Your task to perform on an android device: uninstall "Google Keep" Image 0: 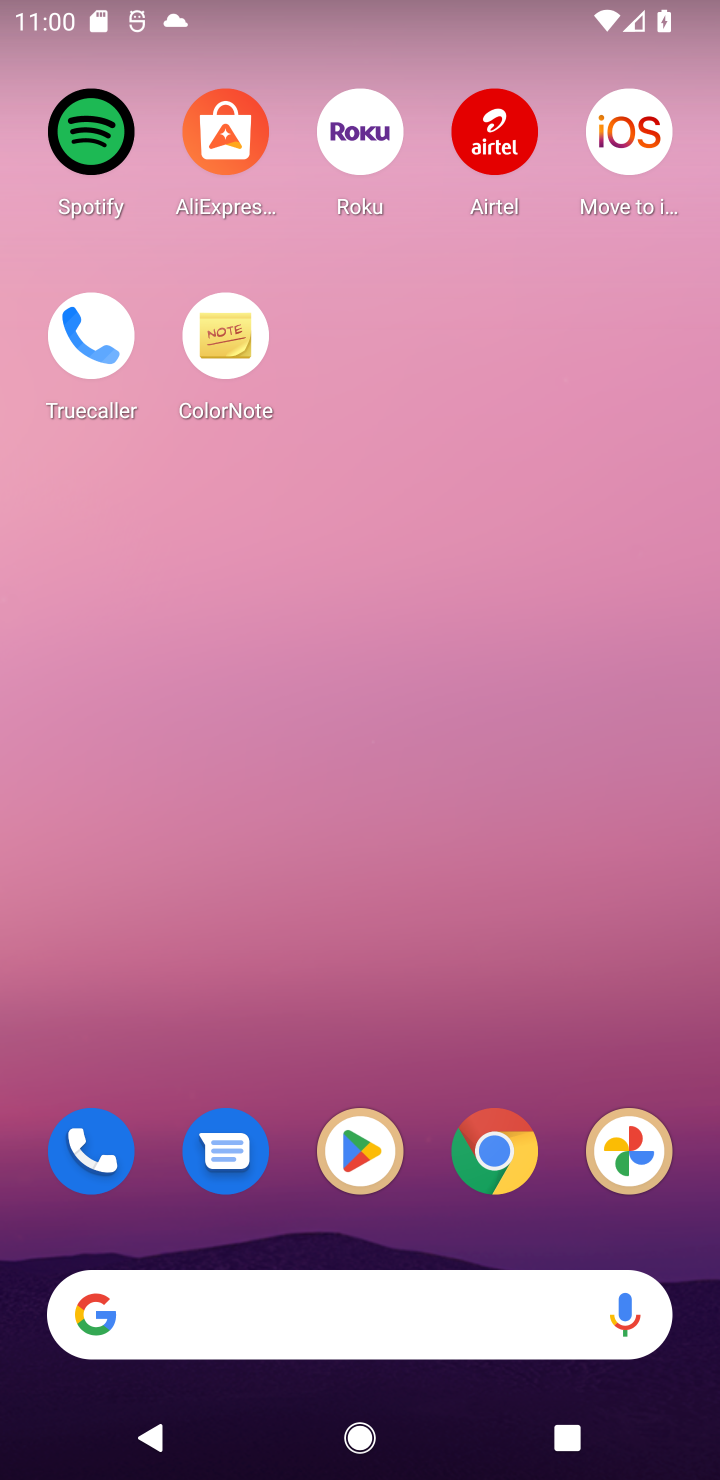
Step 0: press home button
Your task to perform on an android device: uninstall "Google Keep" Image 1: 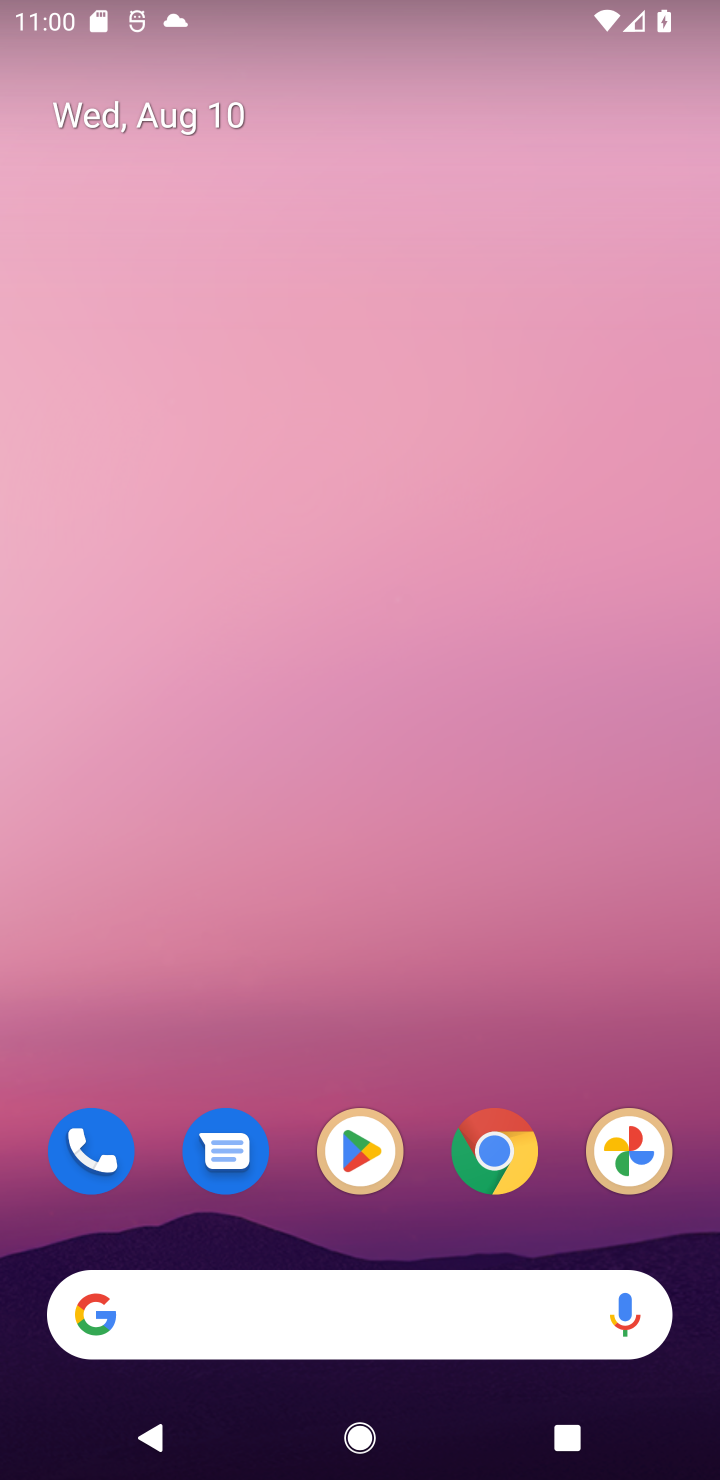
Step 1: drag from (430, 1208) to (434, 267)
Your task to perform on an android device: uninstall "Google Keep" Image 2: 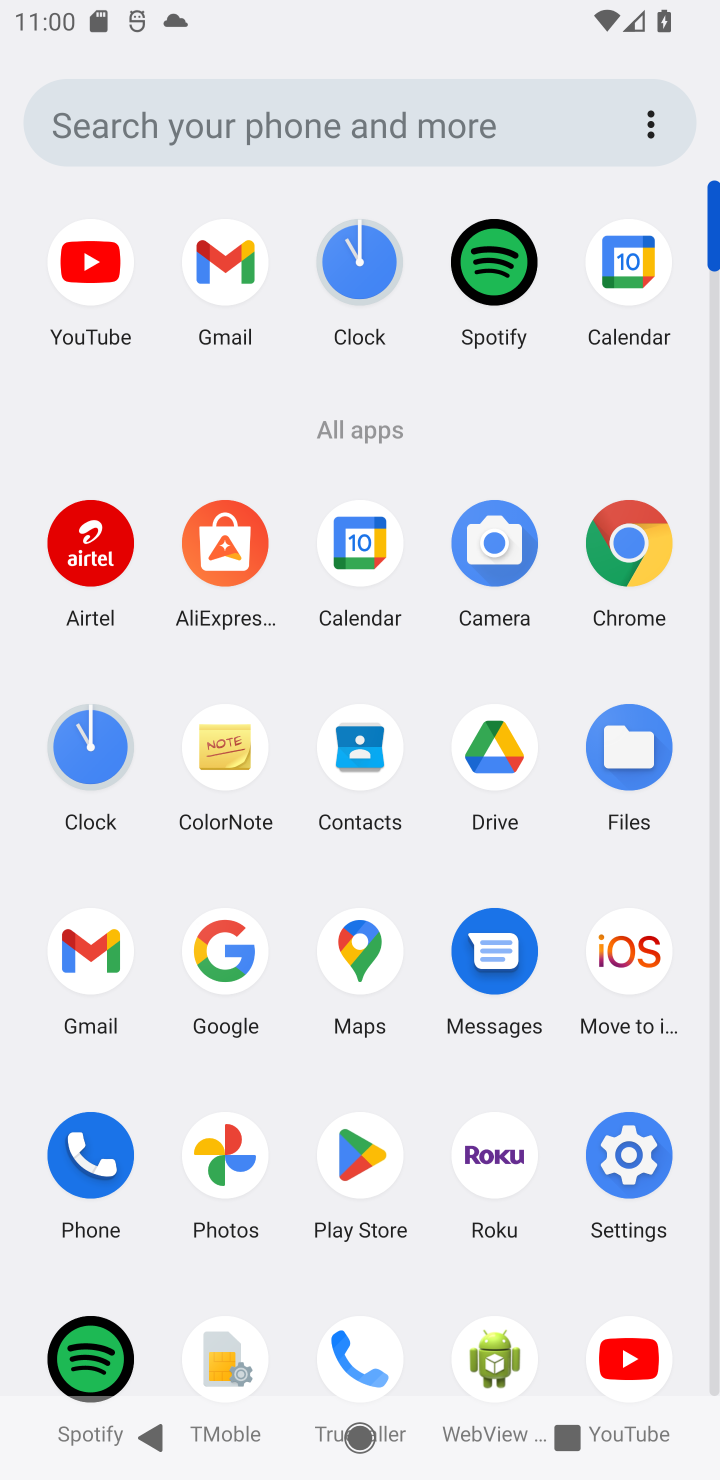
Step 2: click (358, 1143)
Your task to perform on an android device: uninstall "Google Keep" Image 3: 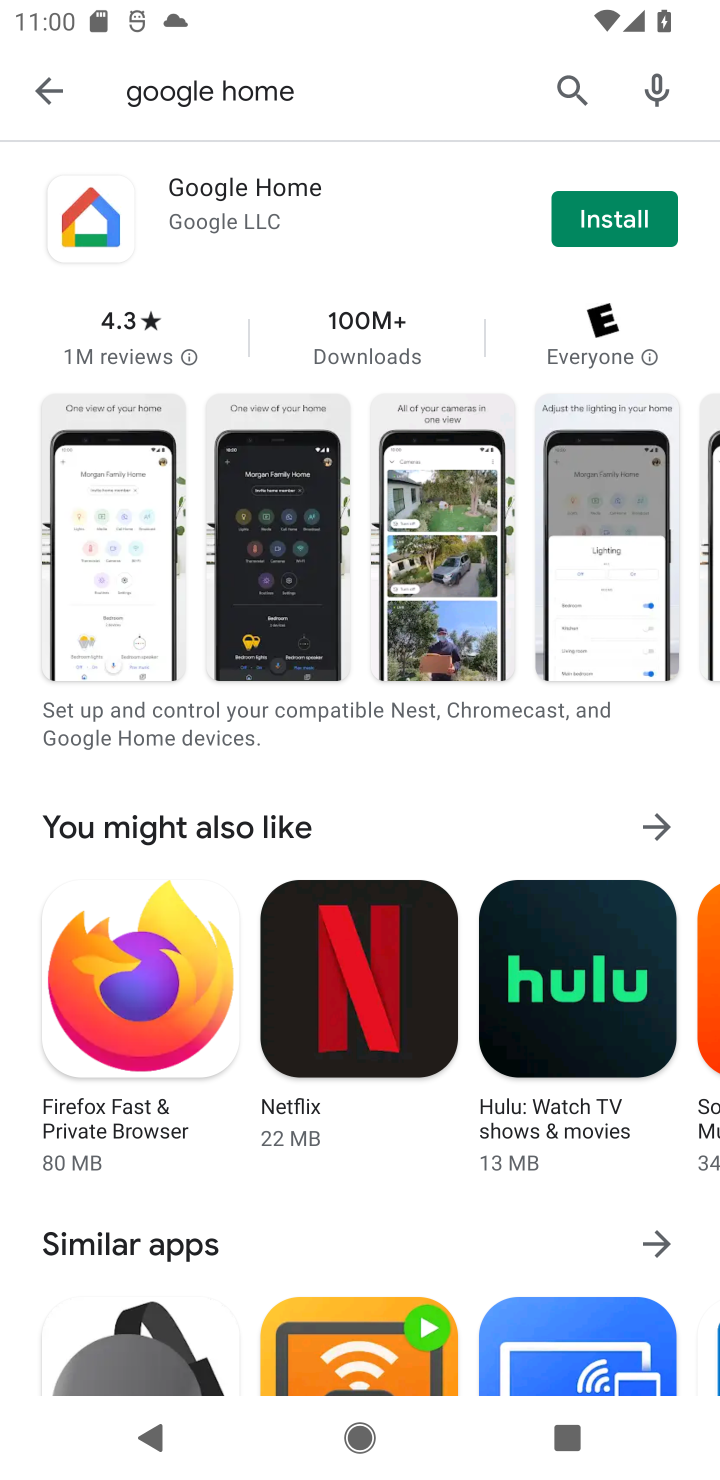
Step 3: click (562, 100)
Your task to perform on an android device: uninstall "Google Keep" Image 4: 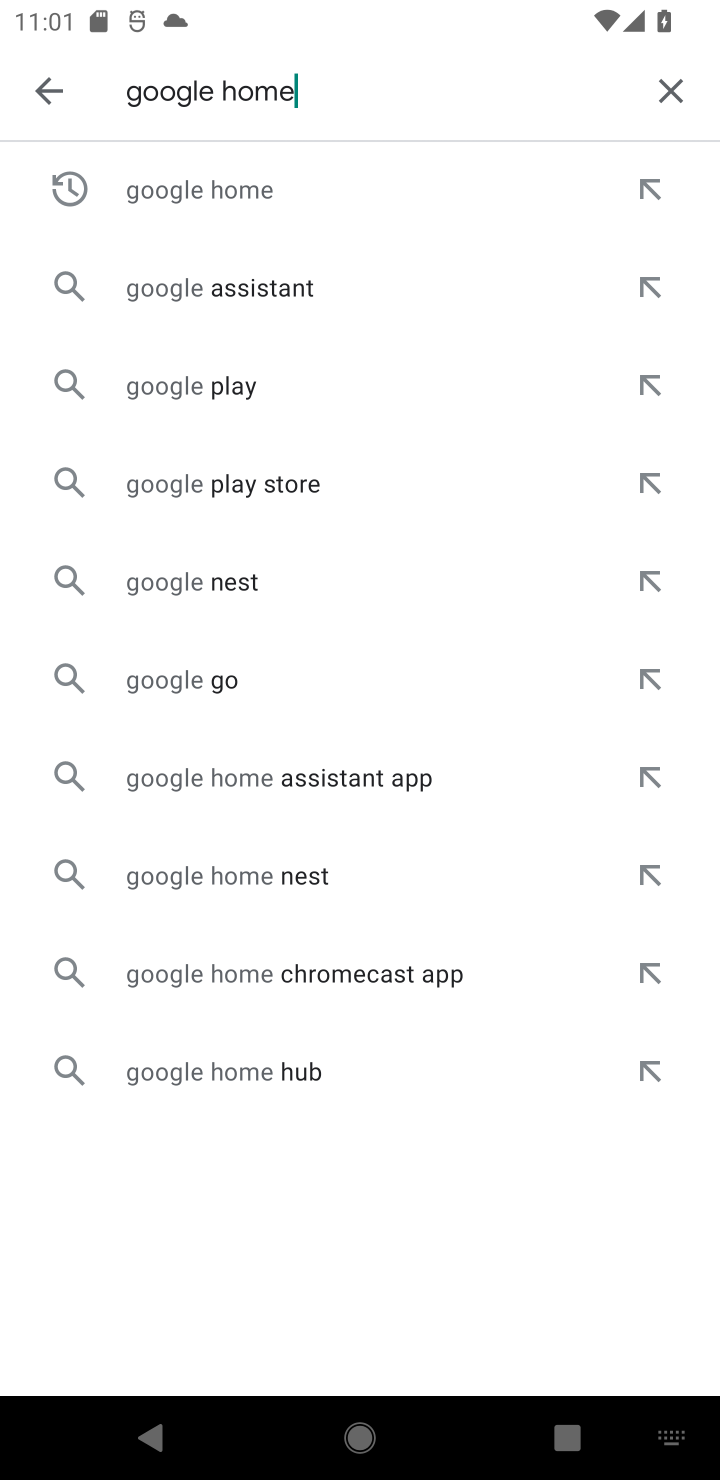
Step 4: click (670, 83)
Your task to perform on an android device: uninstall "Google Keep" Image 5: 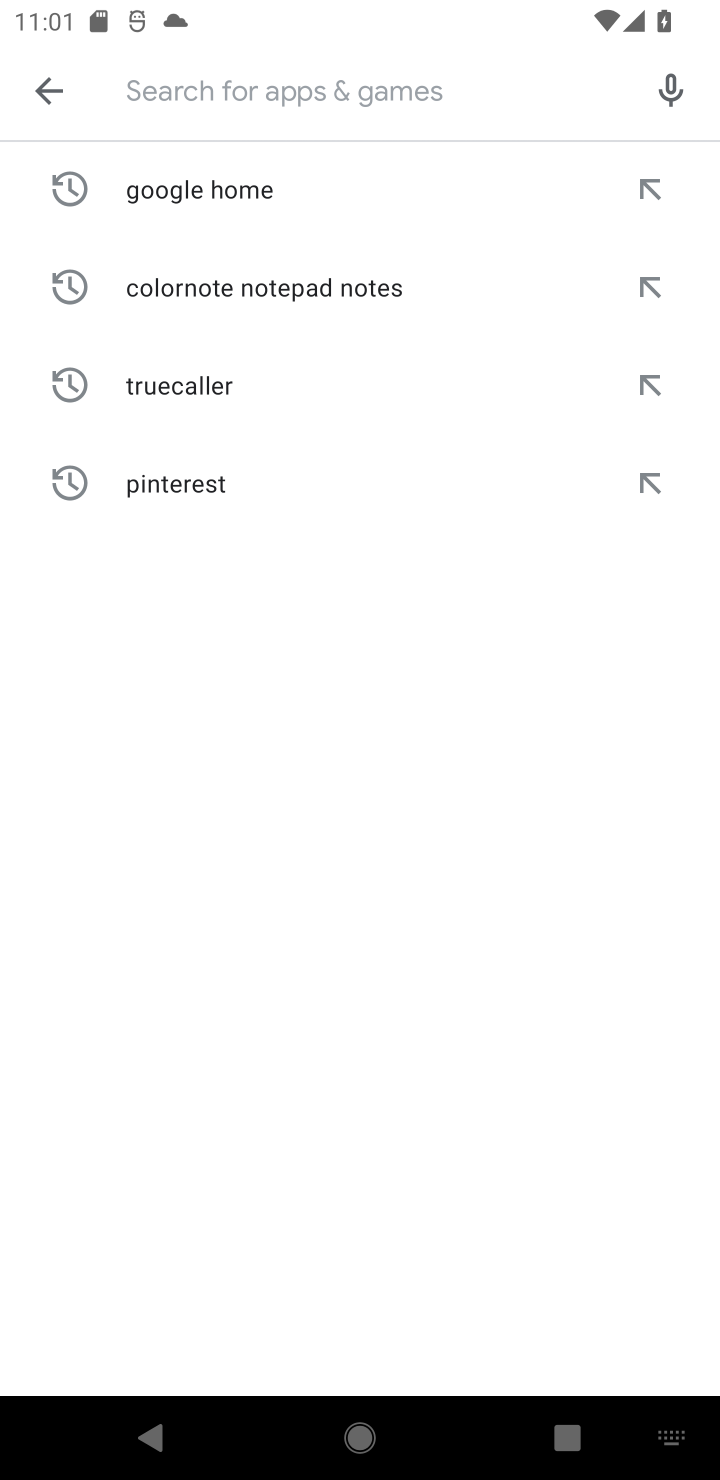
Step 5: type "Google Keep"
Your task to perform on an android device: uninstall "Google Keep" Image 6: 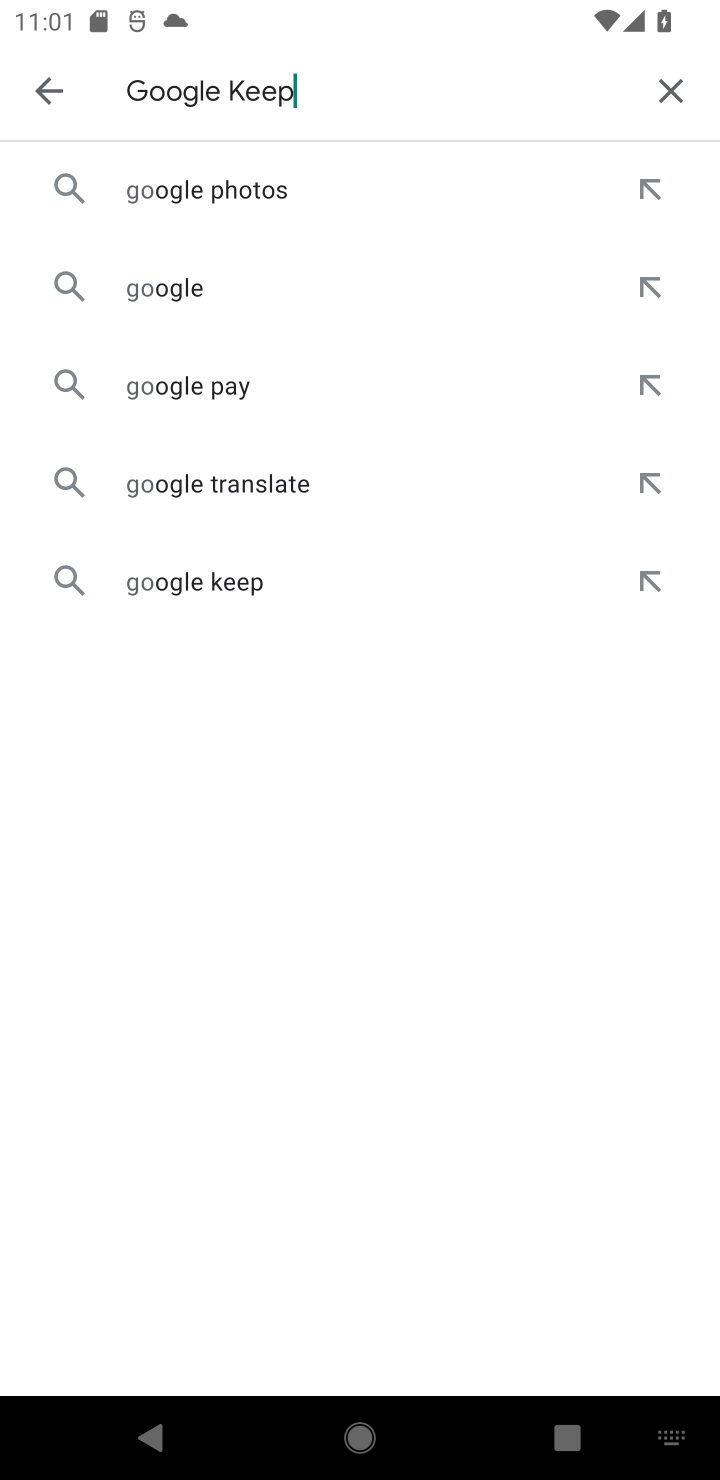
Step 6: type ""
Your task to perform on an android device: uninstall "Google Keep" Image 7: 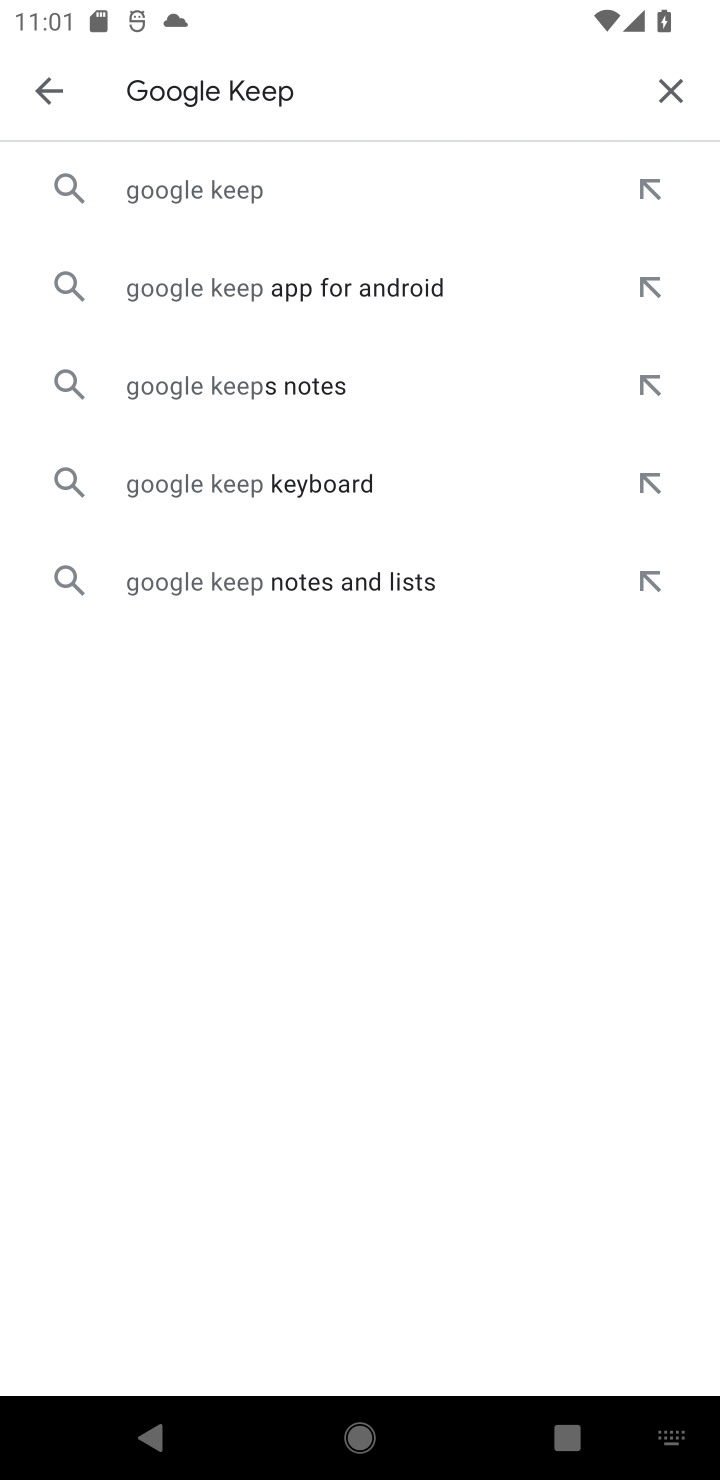
Step 7: click (185, 169)
Your task to perform on an android device: uninstall "Google Keep" Image 8: 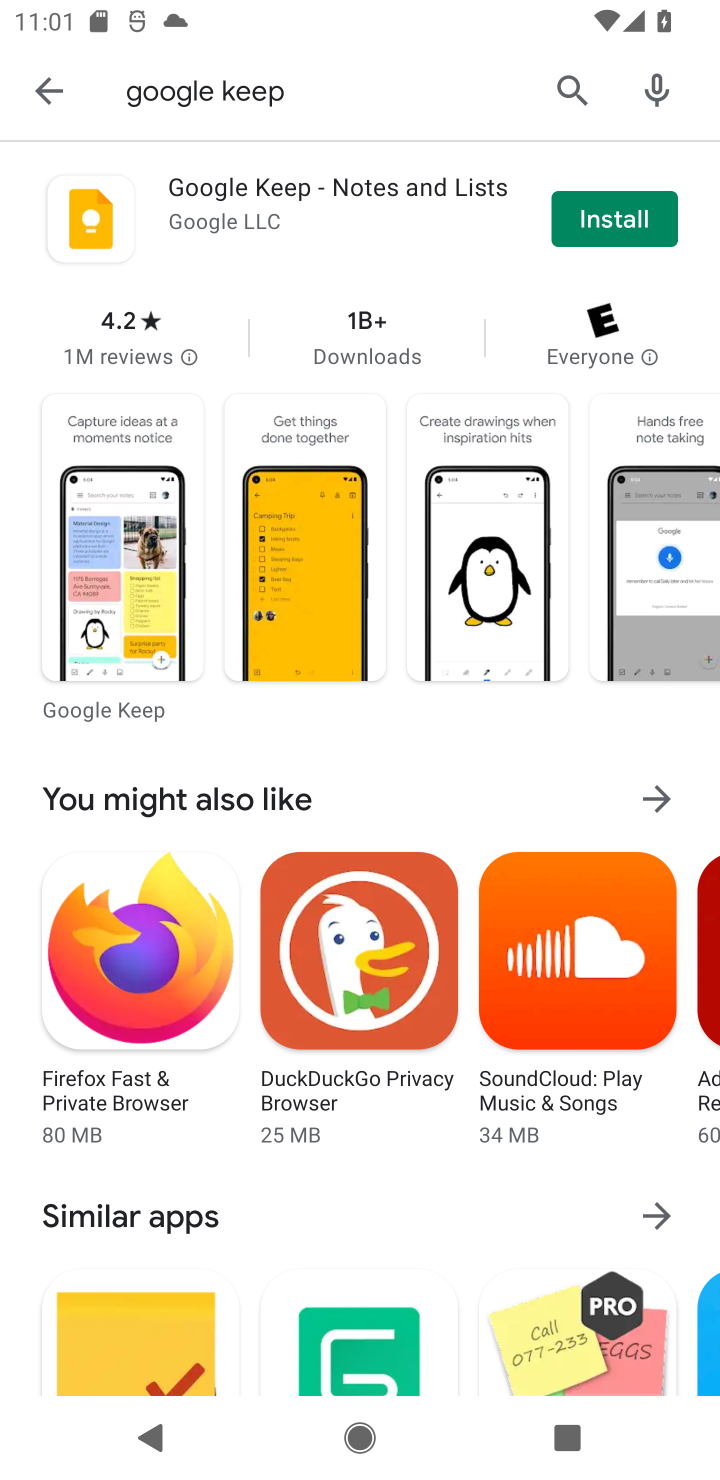
Step 8: task complete